Your task to perform on an android device: toggle wifi Image 0: 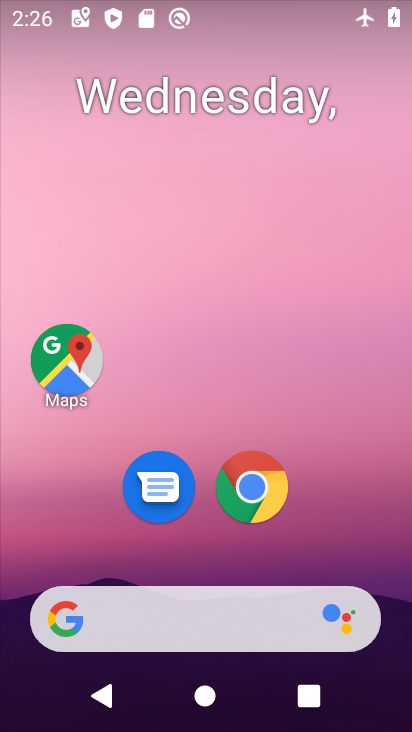
Step 0: drag from (355, 493) to (308, 87)
Your task to perform on an android device: toggle wifi Image 1: 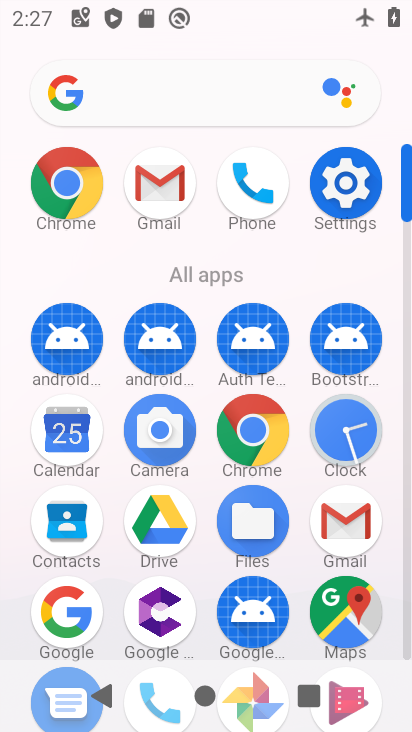
Step 1: click (356, 165)
Your task to perform on an android device: toggle wifi Image 2: 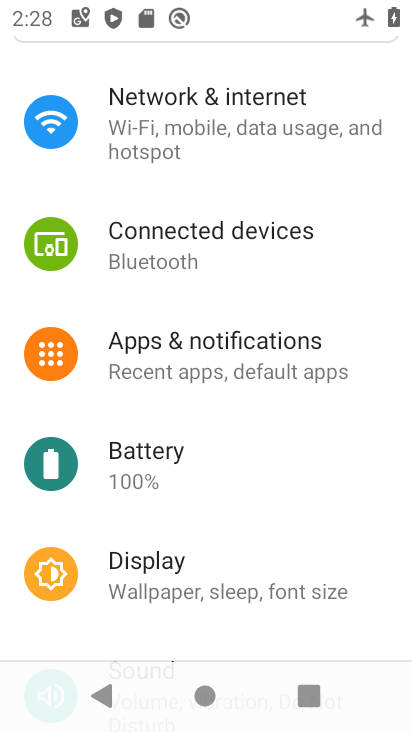
Step 2: drag from (268, 251) to (323, 656)
Your task to perform on an android device: toggle wifi Image 3: 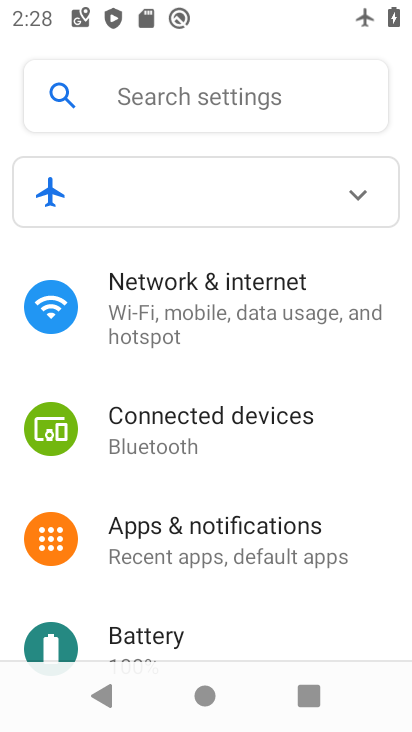
Step 3: click (153, 289)
Your task to perform on an android device: toggle wifi Image 4: 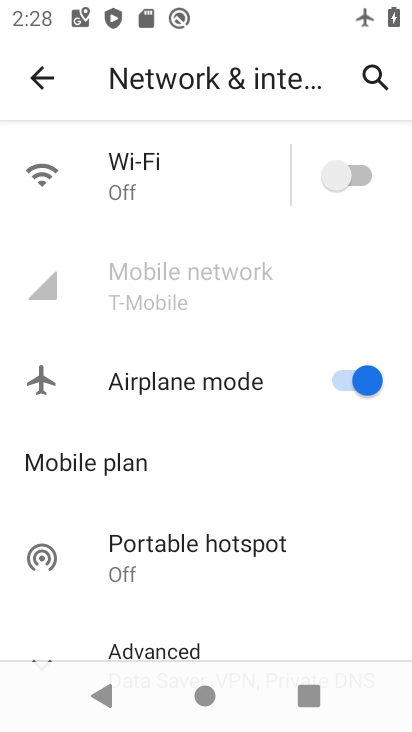
Step 4: click (333, 177)
Your task to perform on an android device: toggle wifi Image 5: 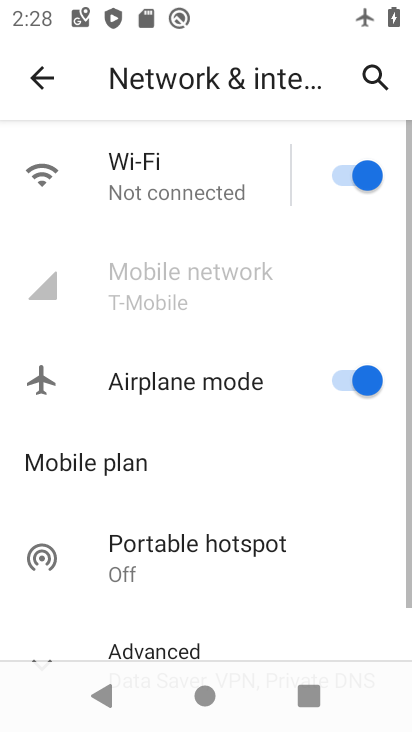
Step 5: task complete